Your task to perform on an android device: refresh tabs in the chrome app Image 0: 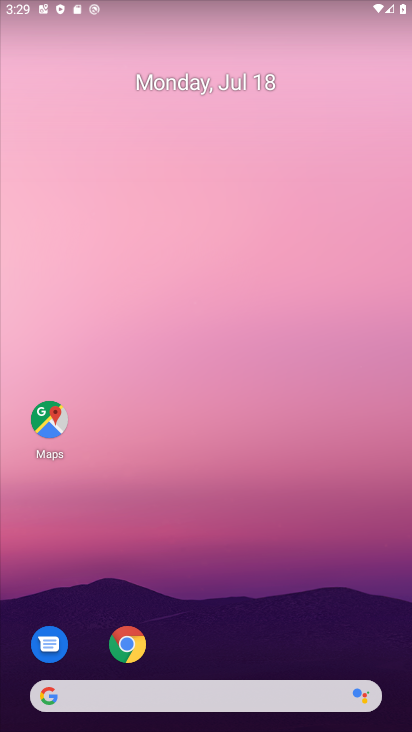
Step 0: click (127, 645)
Your task to perform on an android device: refresh tabs in the chrome app Image 1: 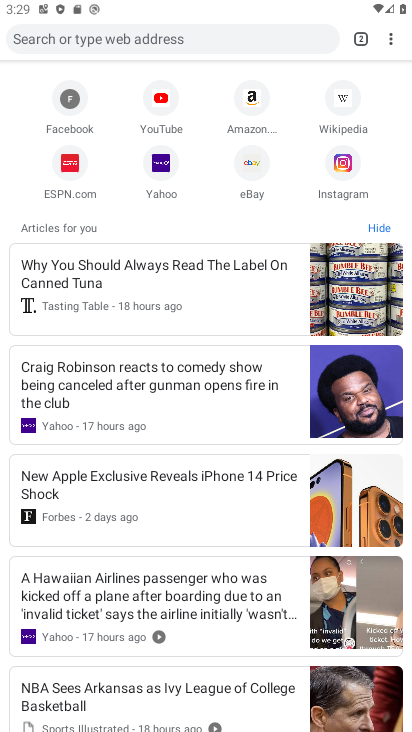
Step 1: click (390, 45)
Your task to perform on an android device: refresh tabs in the chrome app Image 2: 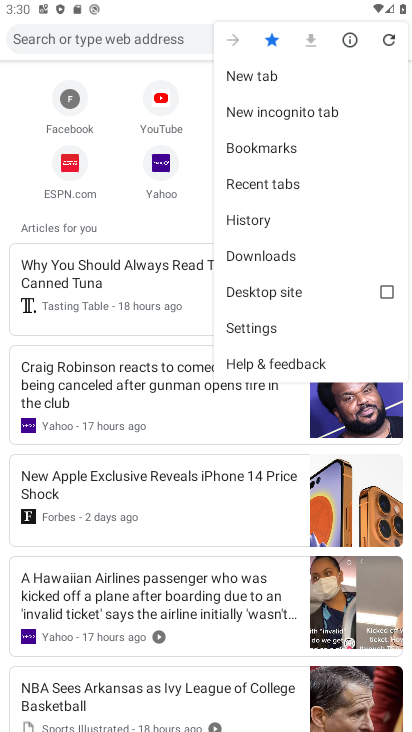
Step 2: click (388, 38)
Your task to perform on an android device: refresh tabs in the chrome app Image 3: 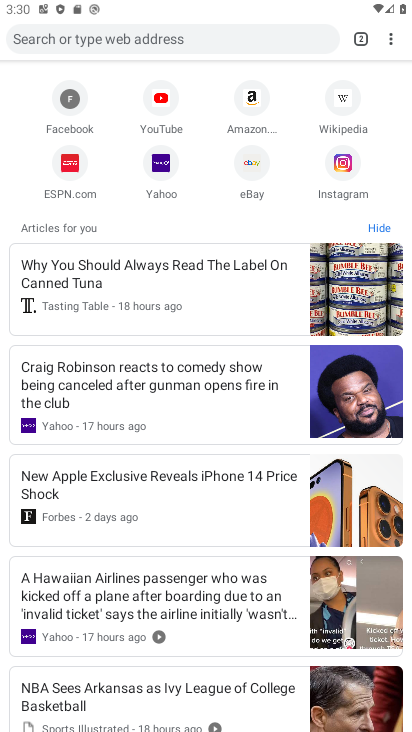
Step 3: task complete